Your task to perform on an android device: set the timer Image 0: 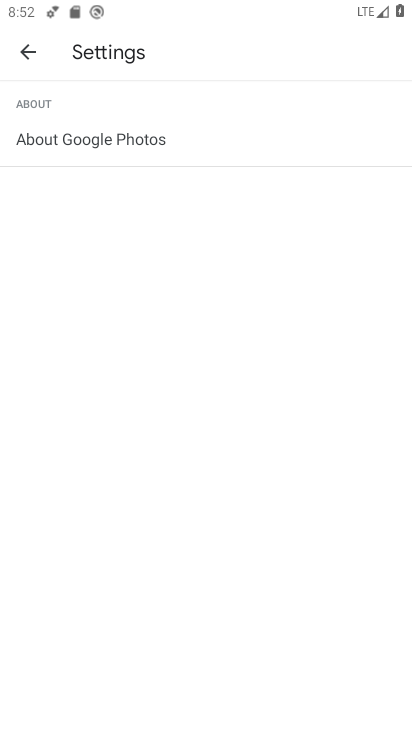
Step 0: press home button
Your task to perform on an android device: set the timer Image 1: 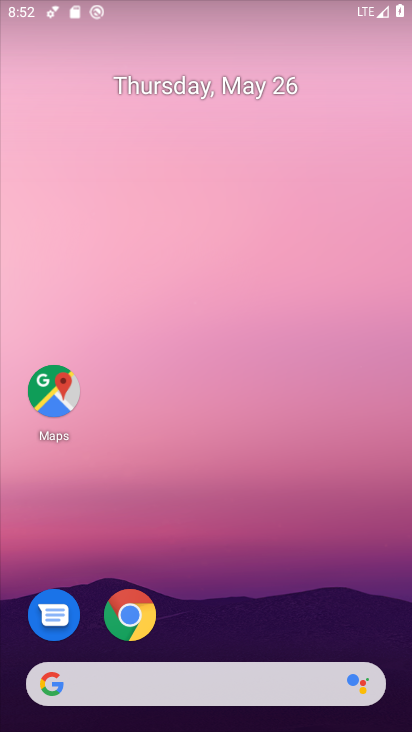
Step 1: drag from (217, 610) to (253, 193)
Your task to perform on an android device: set the timer Image 2: 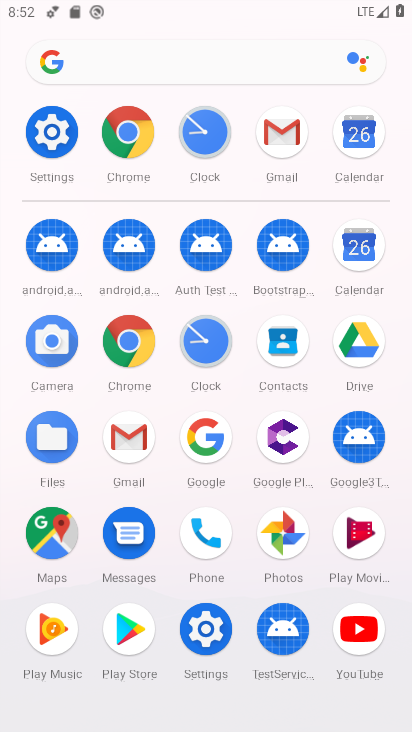
Step 2: click (204, 337)
Your task to perform on an android device: set the timer Image 3: 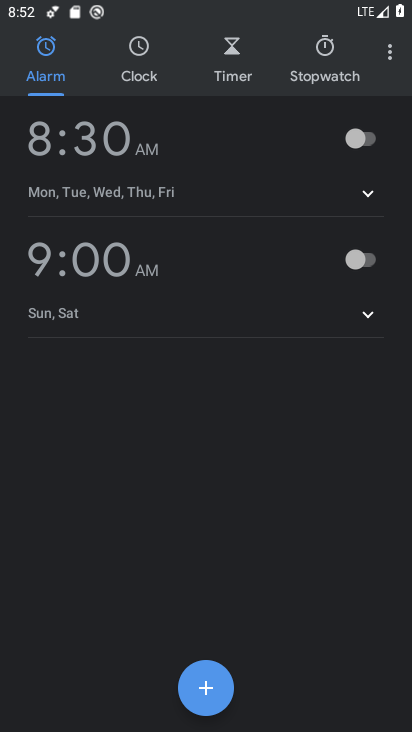
Step 3: click (235, 74)
Your task to perform on an android device: set the timer Image 4: 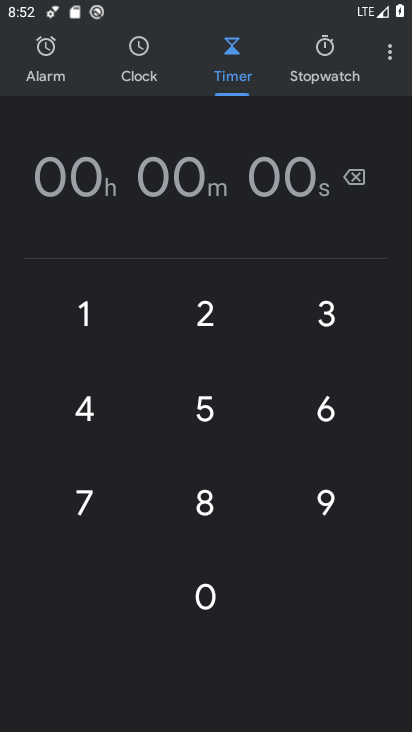
Step 4: click (249, 199)
Your task to perform on an android device: set the timer Image 5: 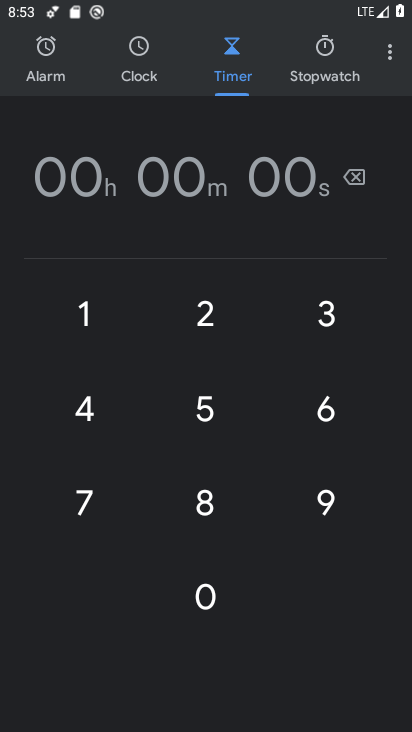
Step 5: type "90909909"
Your task to perform on an android device: set the timer Image 6: 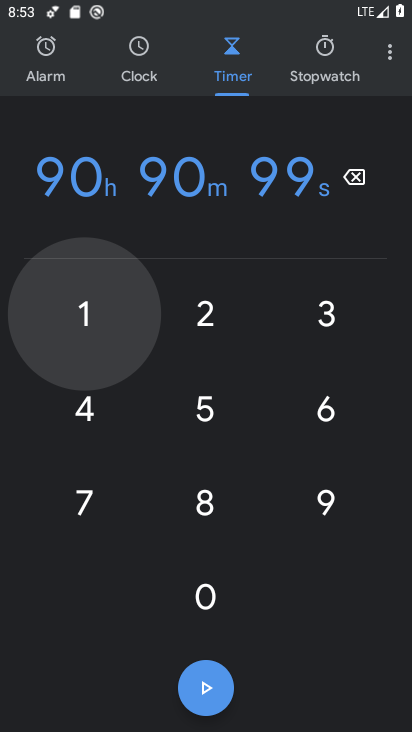
Step 6: click (199, 688)
Your task to perform on an android device: set the timer Image 7: 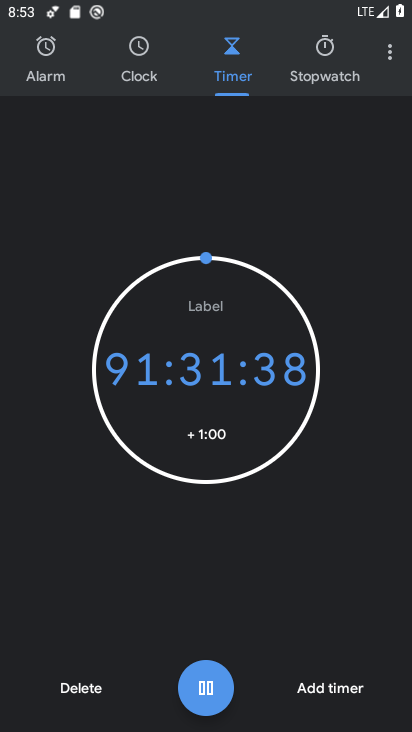
Step 7: task complete